Your task to perform on an android device: turn off location history Image 0: 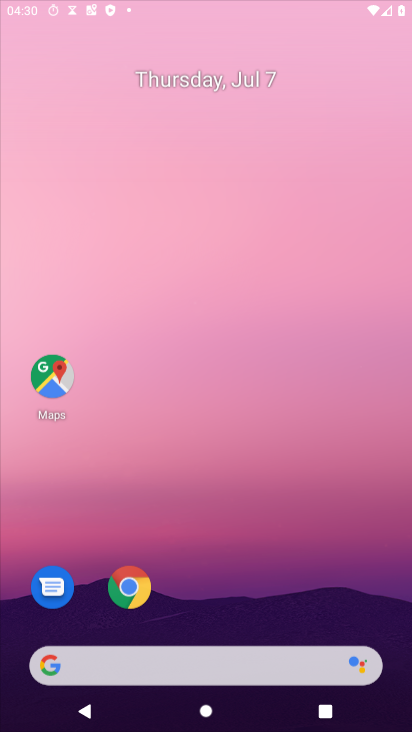
Step 0: press home button
Your task to perform on an android device: turn off location history Image 1: 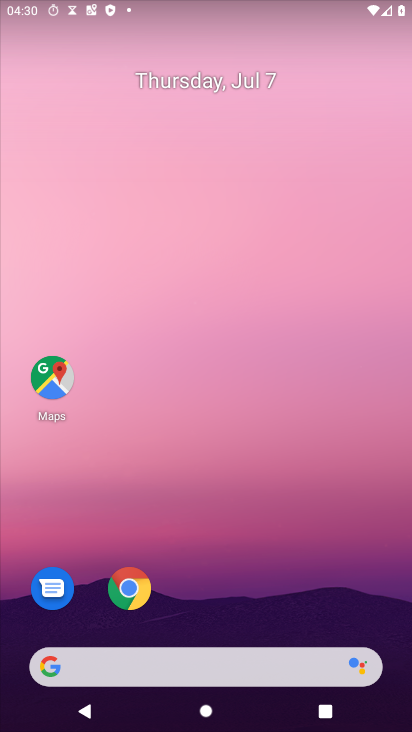
Step 1: drag from (270, 613) to (284, 145)
Your task to perform on an android device: turn off location history Image 2: 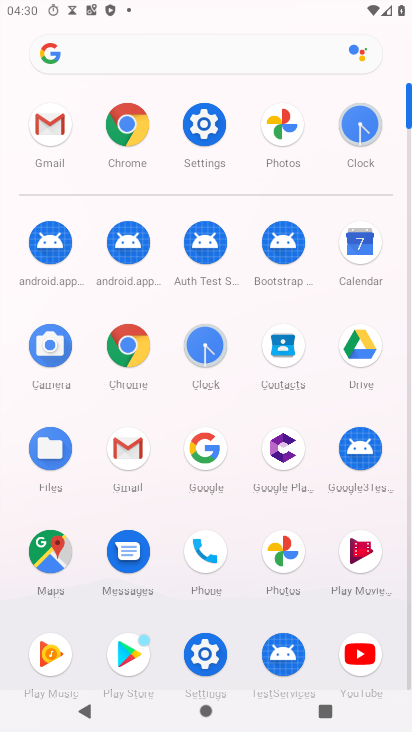
Step 2: click (210, 136)
Your task to perform on an android device: turn off location history Image 3: 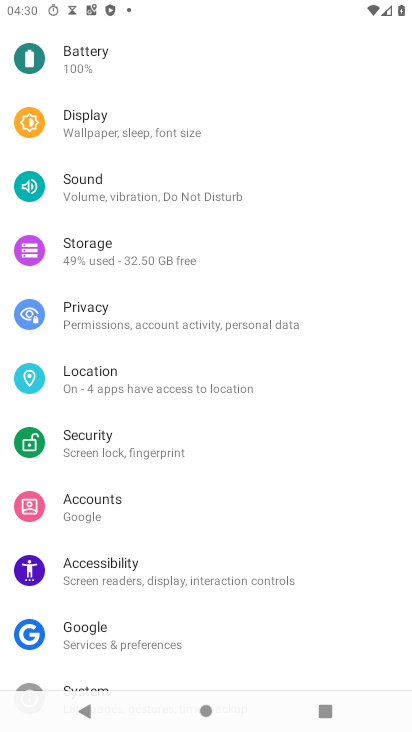
Step 3: click (135, 384)
Your task to perform on an android device: turn off location history Image 4: 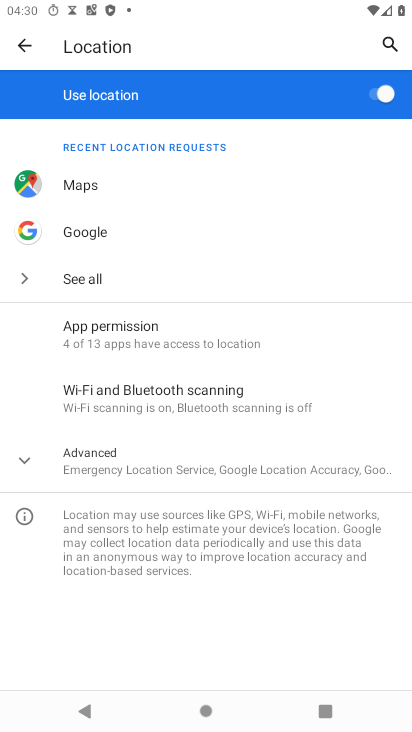
Step 4: click (117, 463)
Your task to perform on an android device: turn off location history Image 5: 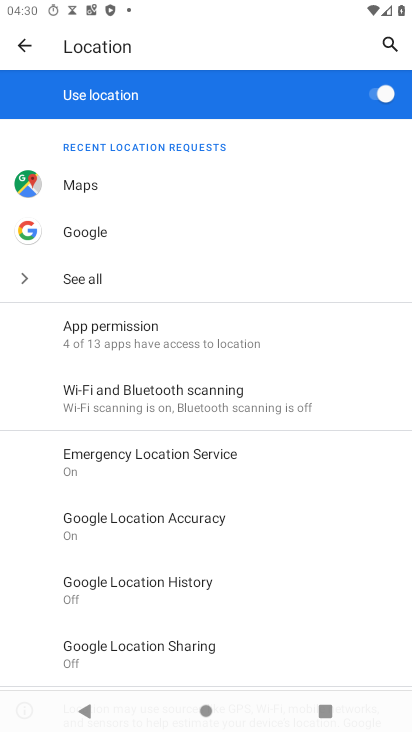
Step 5: click (172, 589)
Your task to perform on an android device: turn off location history Image 6: 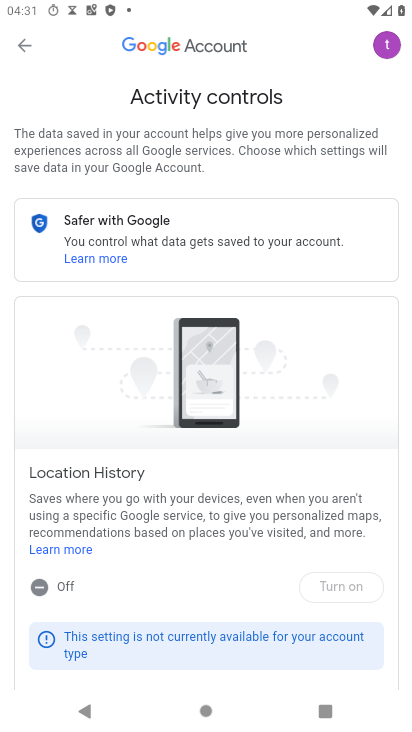
Step 6: task complete